Your task to perform on an android device: toggle show notifications on the lock screen Image 0: 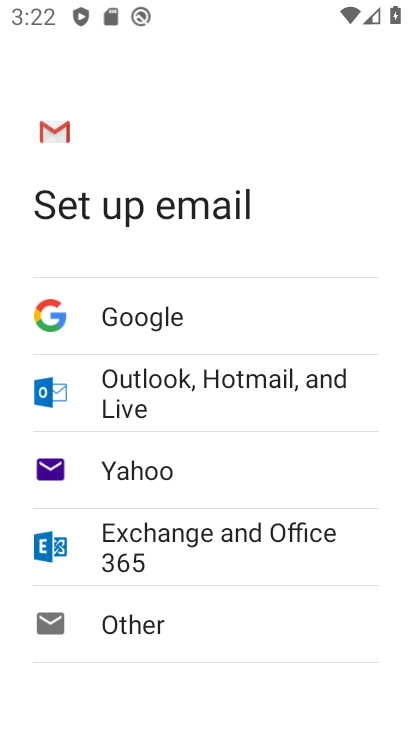
Step 0: press home button
Your task to perform on an android device: toggle show notifications on the lock screen Image 1: 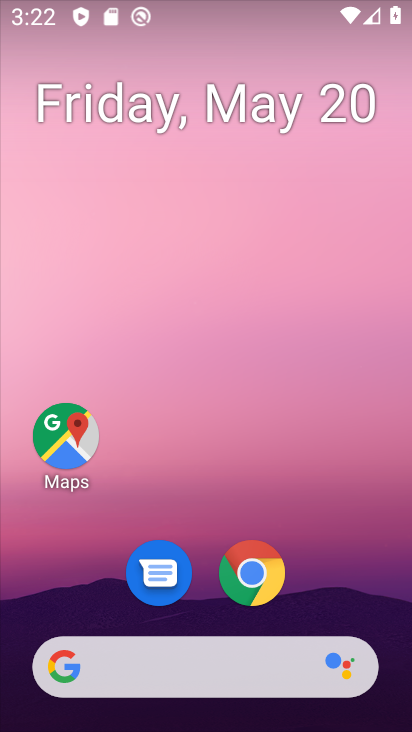
Step 1: drag from (393, 625) to (306, 45)
Your task to perform on an android device: toggle show notifications on the lock screen Image 2: 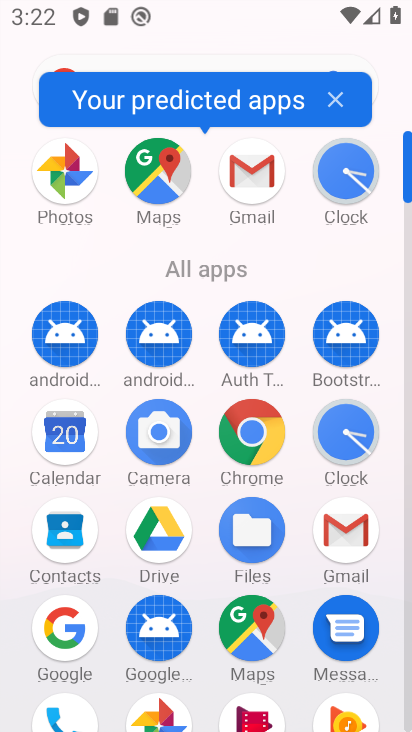
Step 2: click (409, 667)
Your task to perform on an android device: toggle show notifications on the lock screen Image 3: 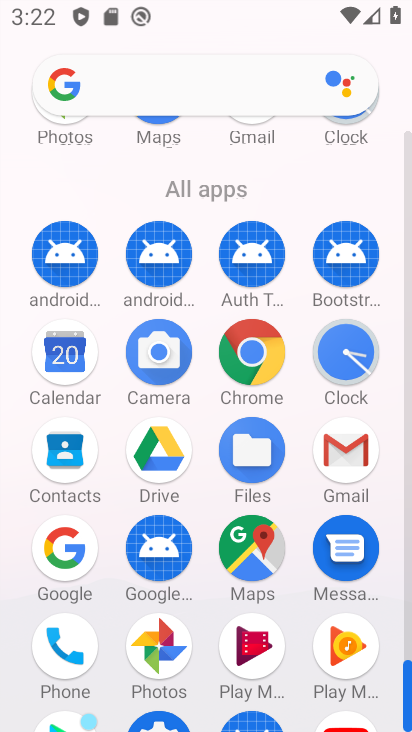
Step 3: drag from (408, 626) to (405, 591)
Your task to perform on an android device: toggle show notifications on the lock screen Image 4: 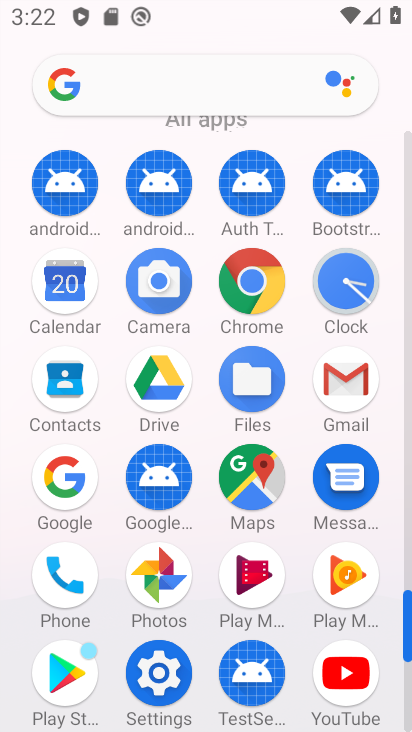
Step 4: click (154, 674)
Your task to perform on an android device: toggle show notifications on the lock screen Image 5: 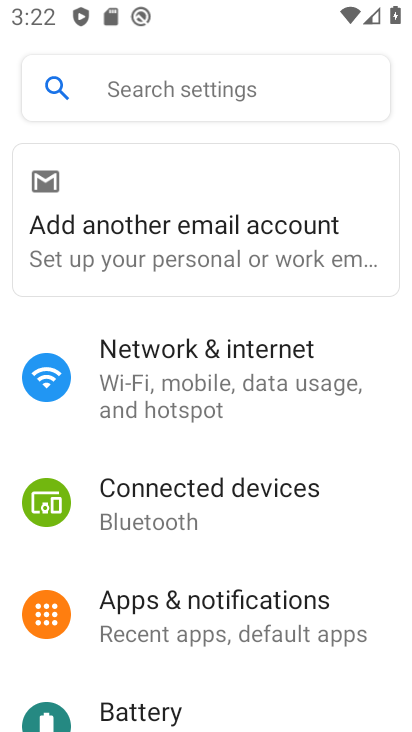
Step 5: click (206, 599)
Your task to perform on an android device: toggle show notifications on the lock screen Image 6: 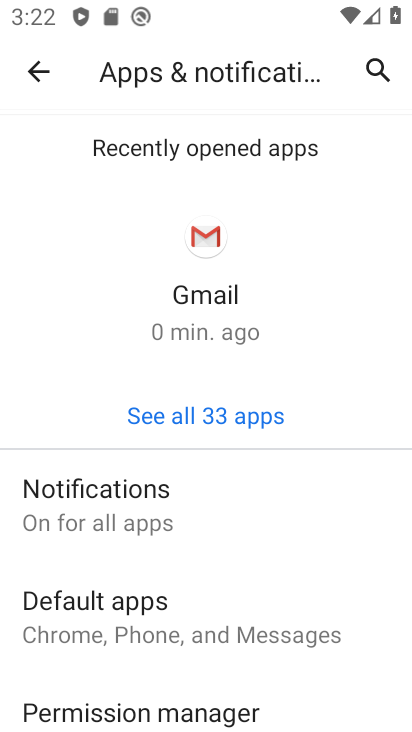
Step 6: click (91, 488)
Your task to perform on an android device: toggle show notifications on the lock screen Image 7: 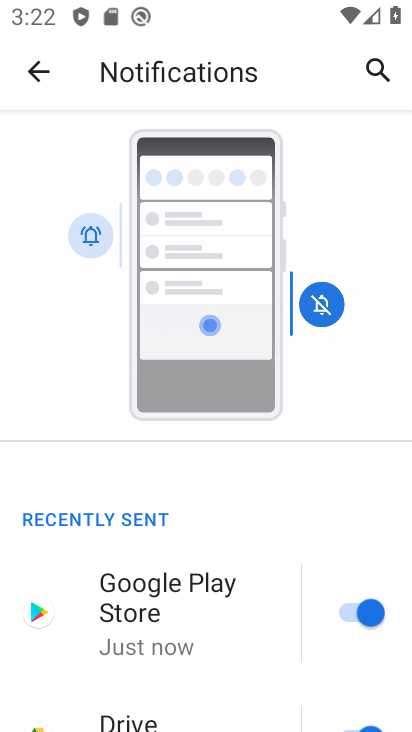
Step 7: drag from (296, 705) to (201, 95)
Your task to perform on an android device: toggle show notifications on the lock screen Image 8: 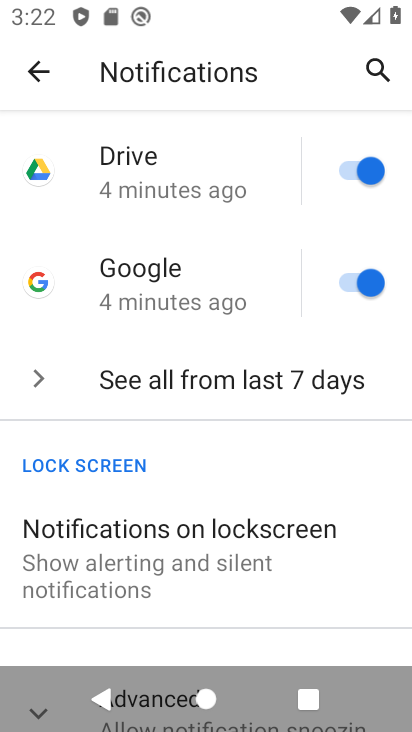
Step 8: click (197, 553)
Your task to perform on an android device: toggle show notifications on the lock screen Image 9: 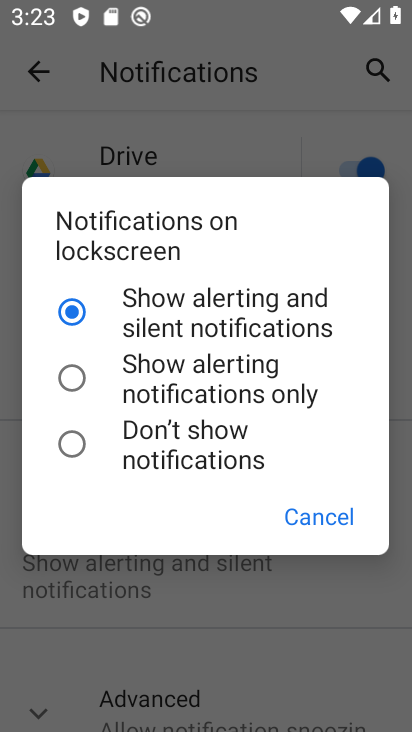
Step 9: click (64, 368)
Your task to perform on an android device: toggle show notifications on the lock screen Image 10: 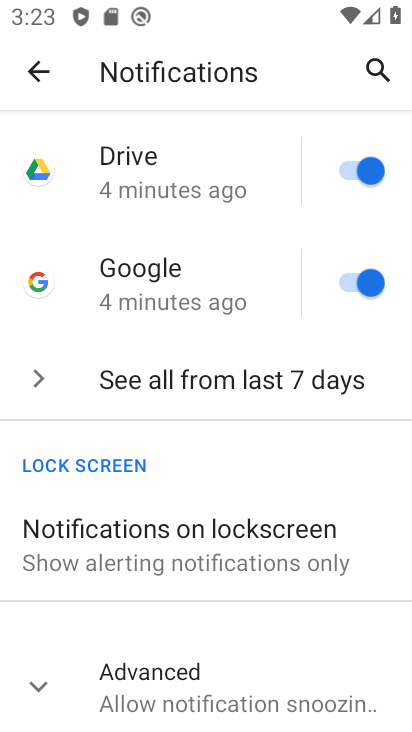
Step 10: task complete